Your task to perform on an android device: open app "Expedia: Hotels, Flights & Car" (install if not already installed) and go to login screen Image 0: 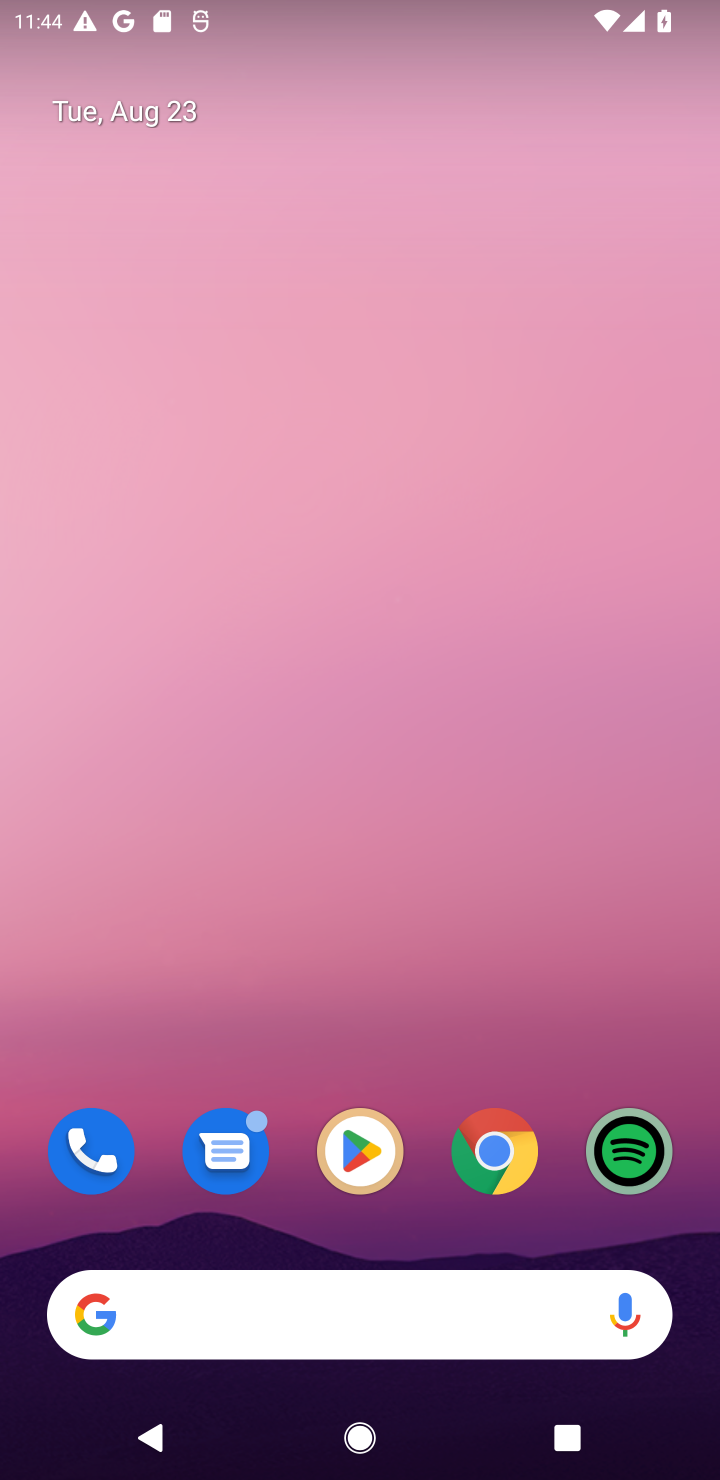
Step 0: click (366, 1155)
Your task to perform on an android device: open app "Expedia: Hotels, Flights & Car" (install if not already installed) and go to login screen Image 1: 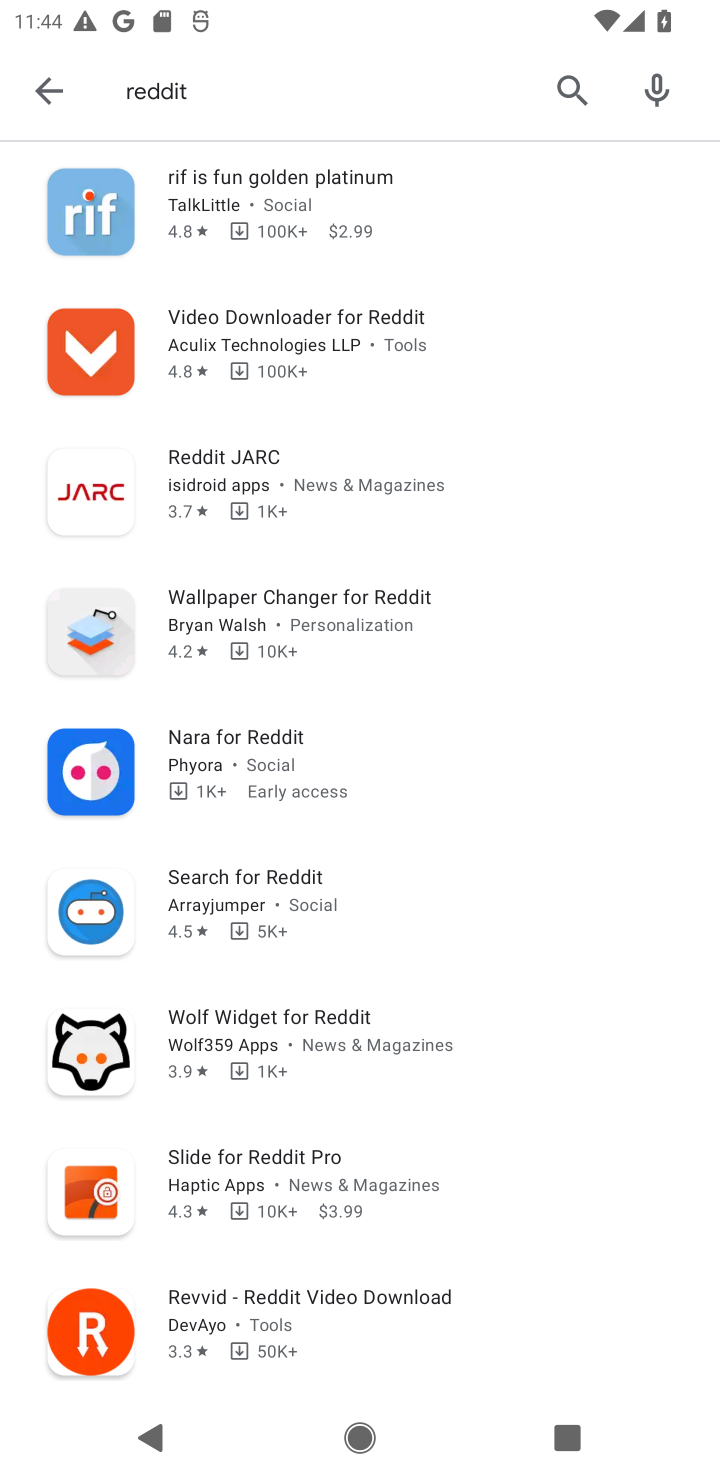
Step 1: click (570, 81)
Your task to perform on an android device: open app "Expedia: Hotels, Flights & Car" (install if not already installed) and go to login screen Image 2: 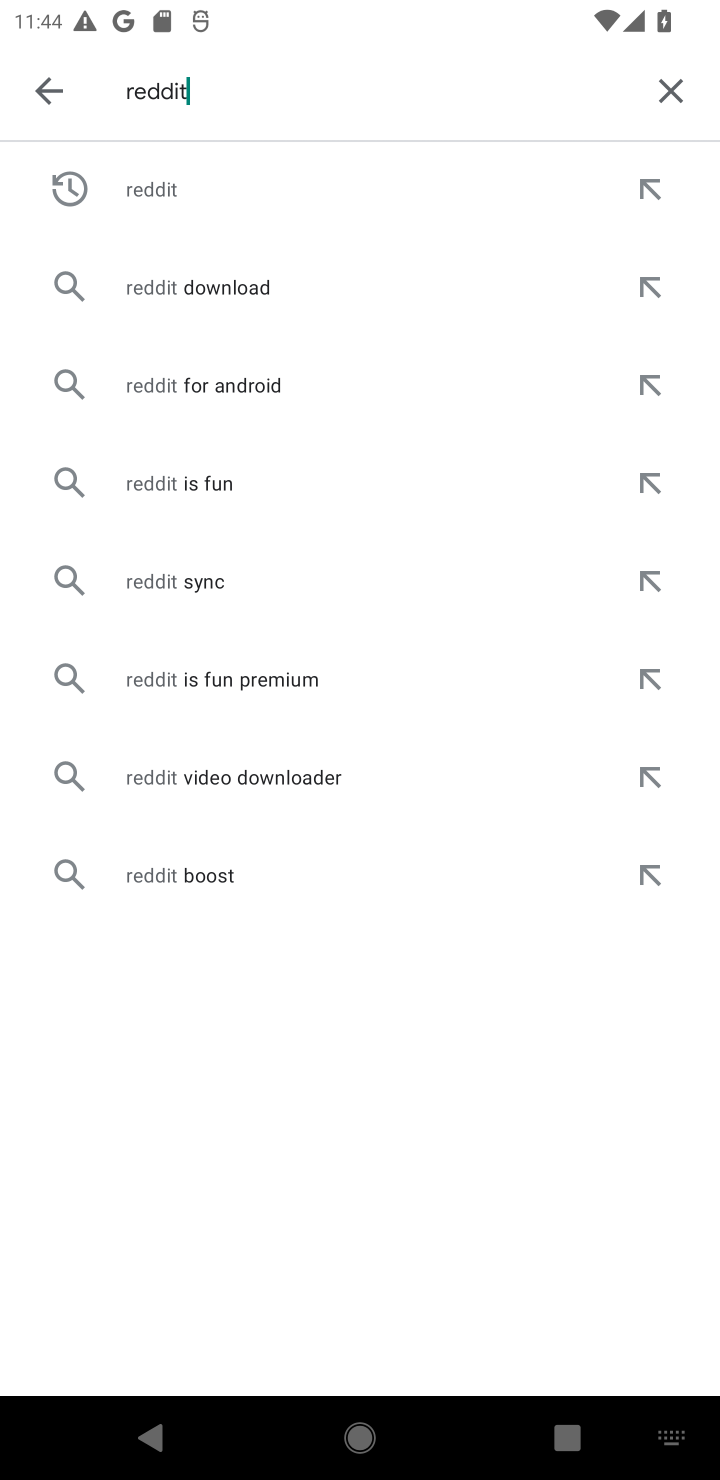
Step 2: click (659, 76)
Your task to perform on an android device: open app "Expedia: Hotels, Flights & Car" (install if not already installed) and go to login screen Image 3: 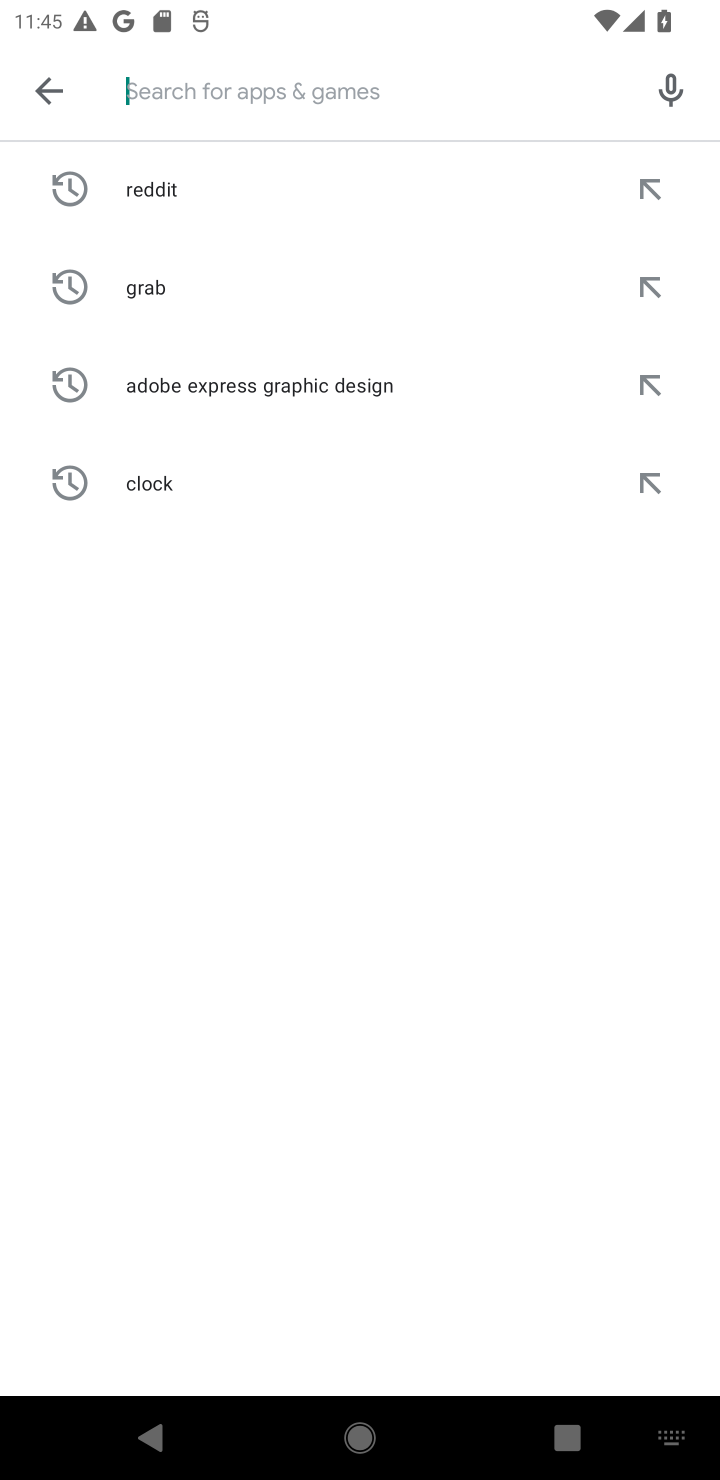
Step 3: type "Expedia: Hotels, Flights & Car"
Your task to perform on an android device: open app "Expedia: Hotels, Flights & Car" (install if not already installed) and go to login screen Image 4: 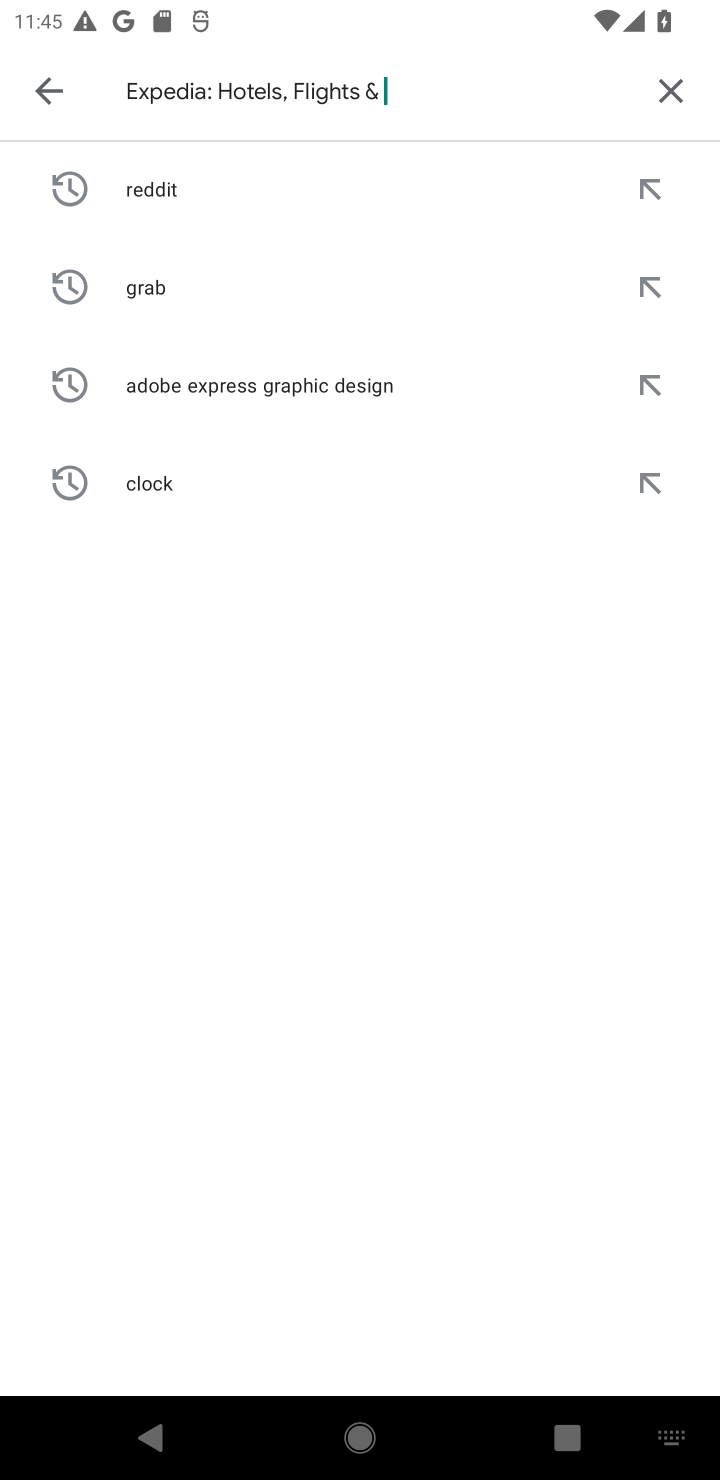
Step 4: type ""
Your task to perform on an android device: open app "Expedia: Hotels, Flights & Car" (install if not already installed) and go to login screen Image 5: 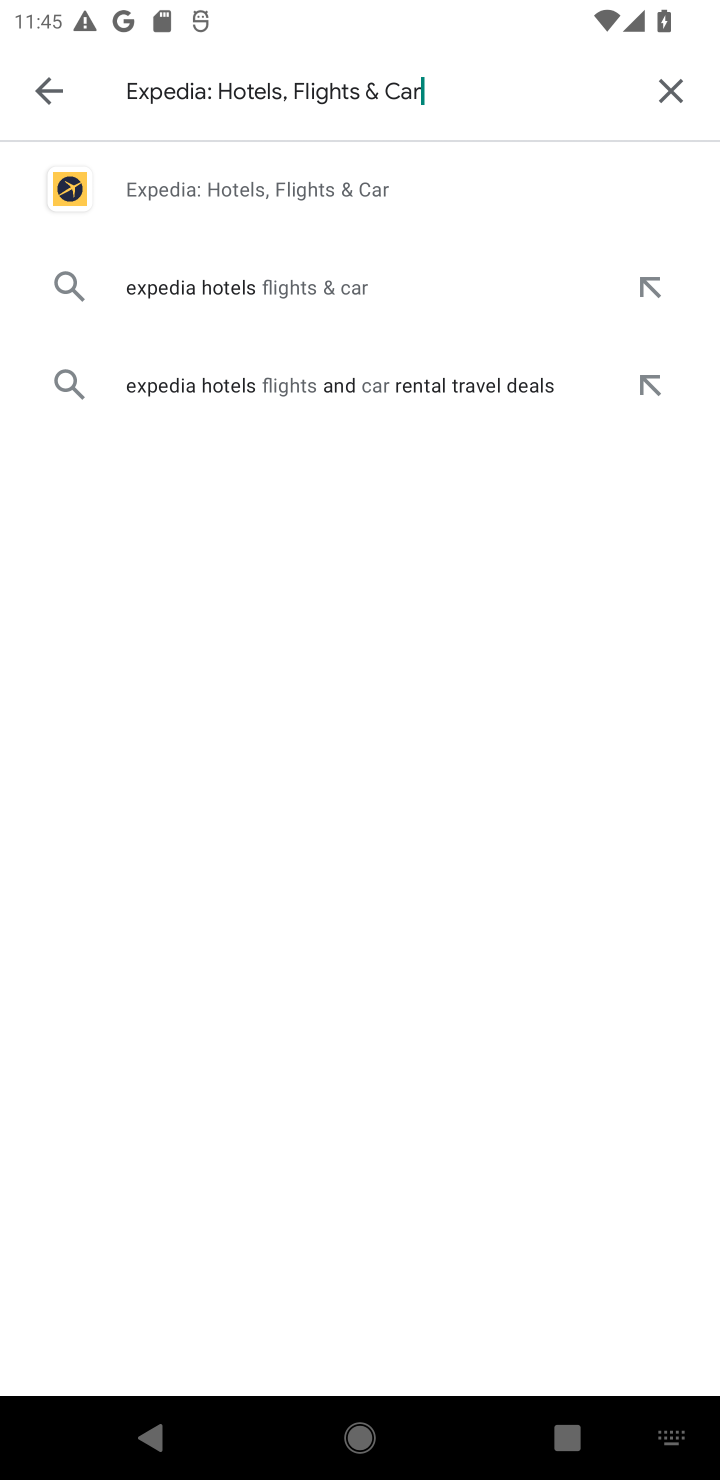
Step 5: click (421, 182)
Your task to perform on an android device: open app "Expedia: Hotels, Flights & Car" (install if not already installed) and go to login screen Image 6: 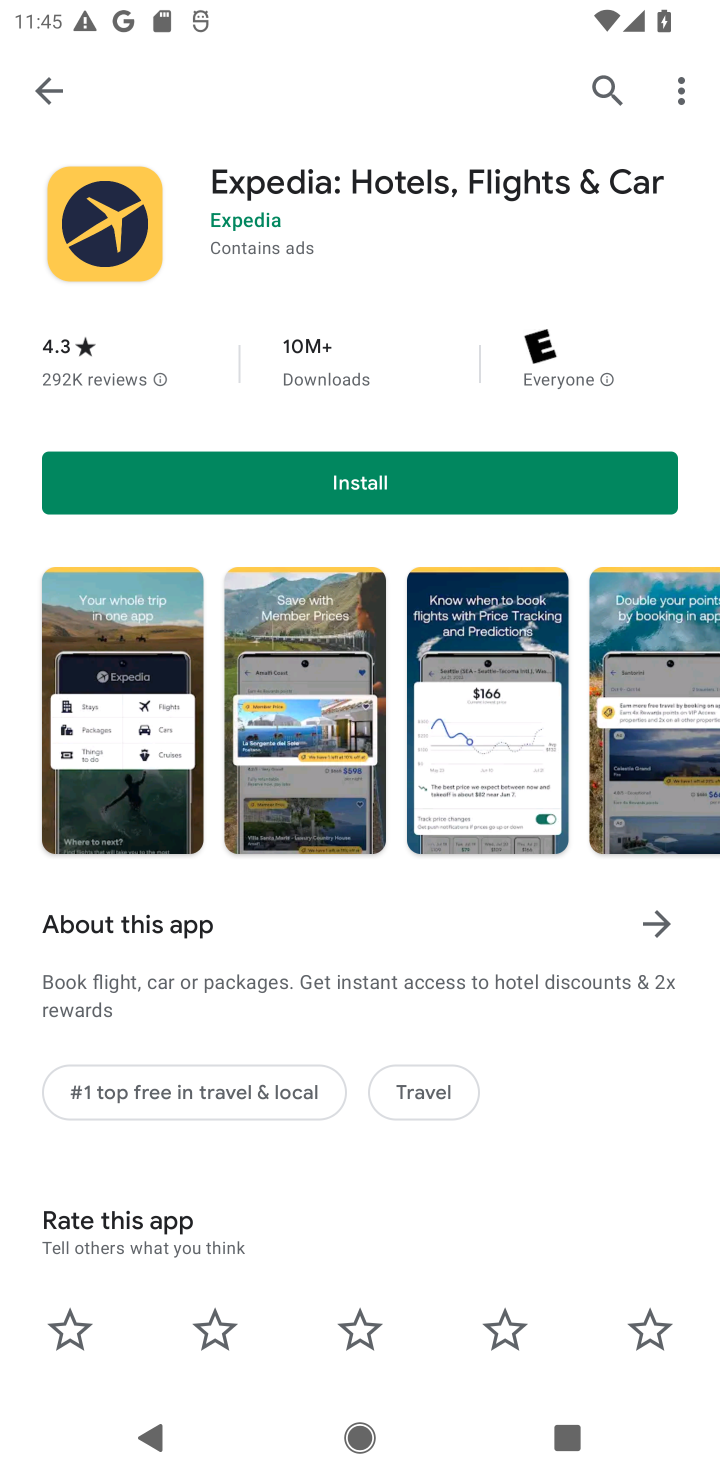
Step 6: click (457, 467)
Your task to perform on an android device: open app "Expedia: Hotels, Flights & Car" (install if not already installed) and go to login screen Image 7: 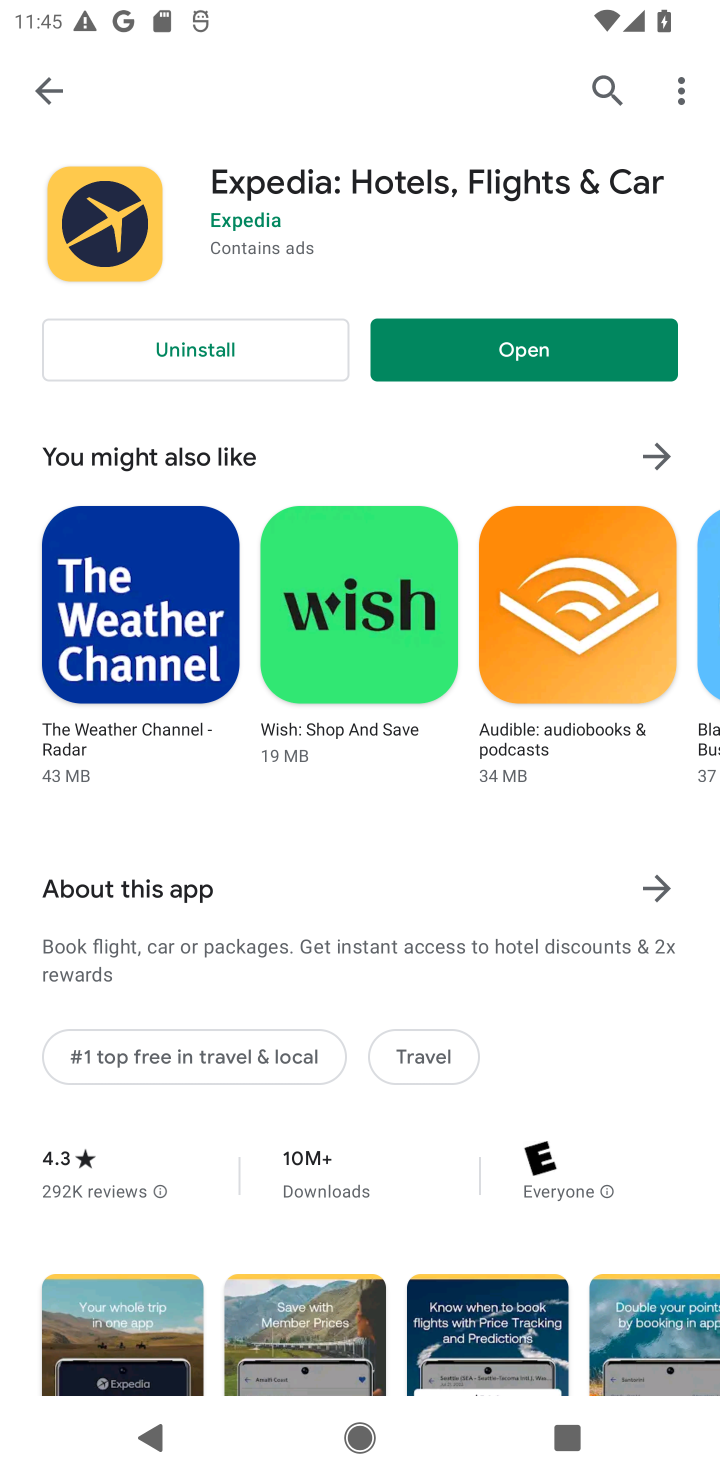
Step 7: click (518, 359)
Your task to perform on an android device: open app "Expedia: Hotels, Flights & Car" (install if not already installed) and go to login screen Image 8: 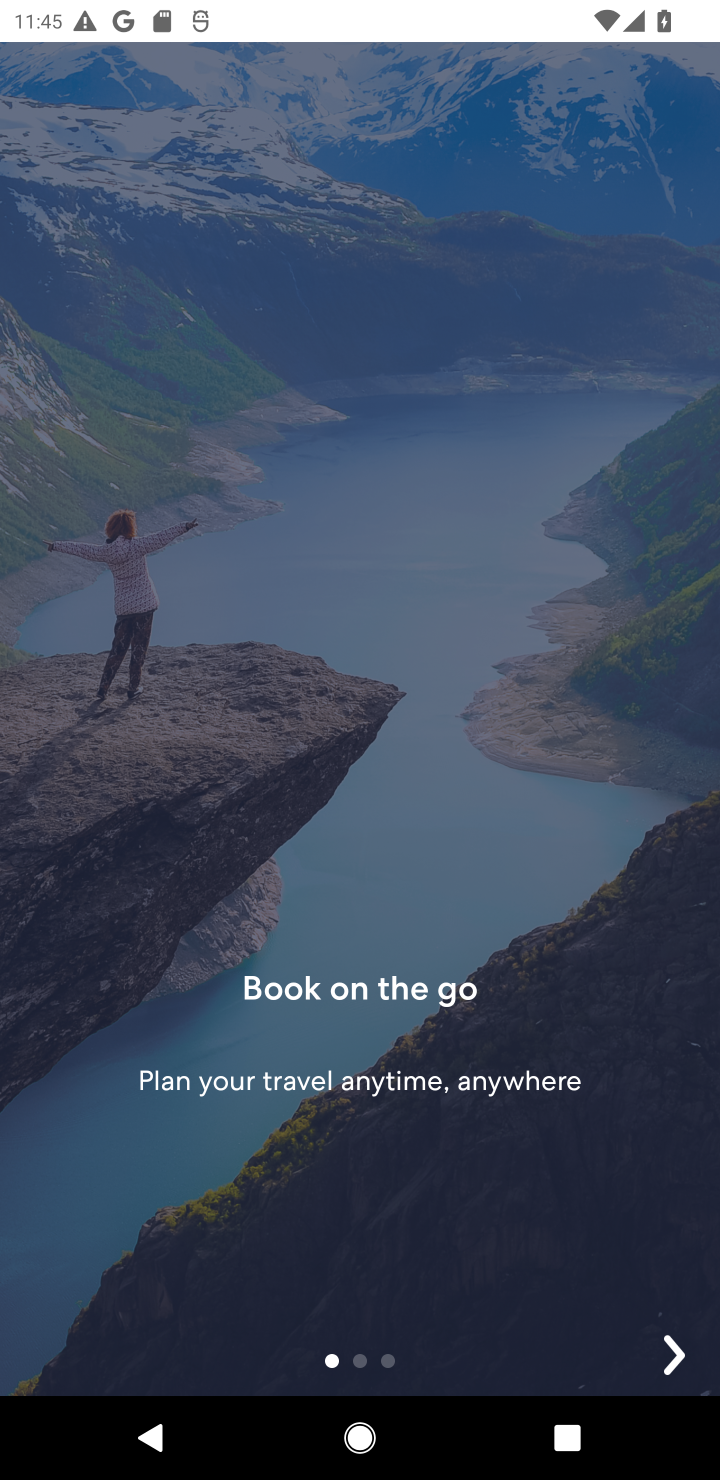
Step 8: task complete